Your task to perform on an android device: change your default location settings in chrome Image 0: 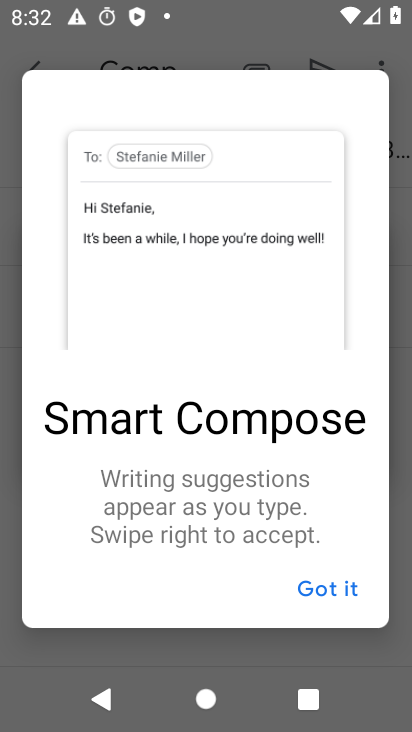
Step 0: press home button
Your task to perform on an android device: change your default location settings in chrome Image 1: 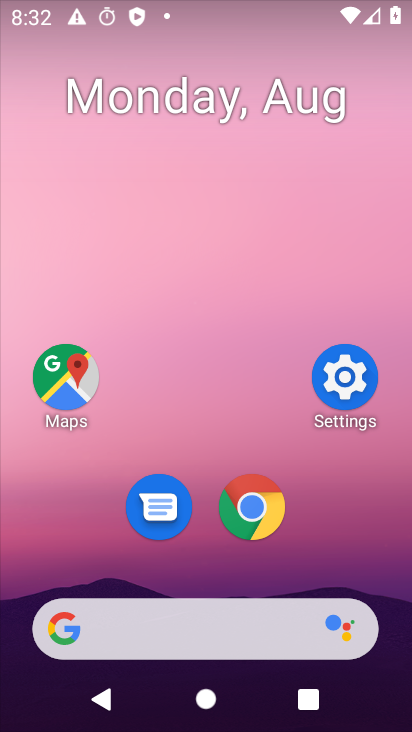
Step 1: click (245, 507)
Your task to perform on an android device: change your default location settings in chrome Image 2: 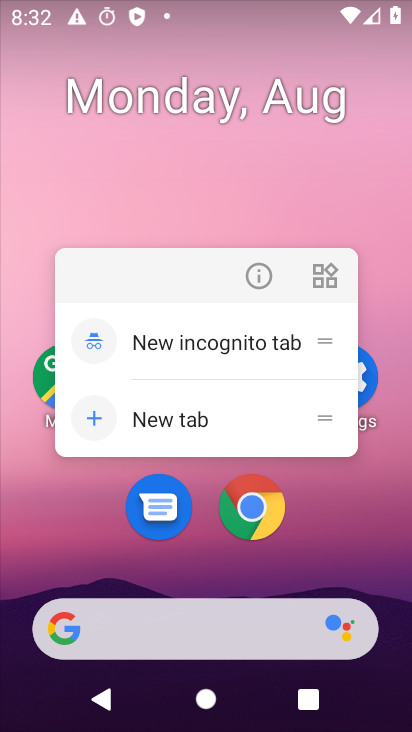
Step 2: click (251, 509)
Your task to perform on an android device: change your default location settings in chrome Image 3: 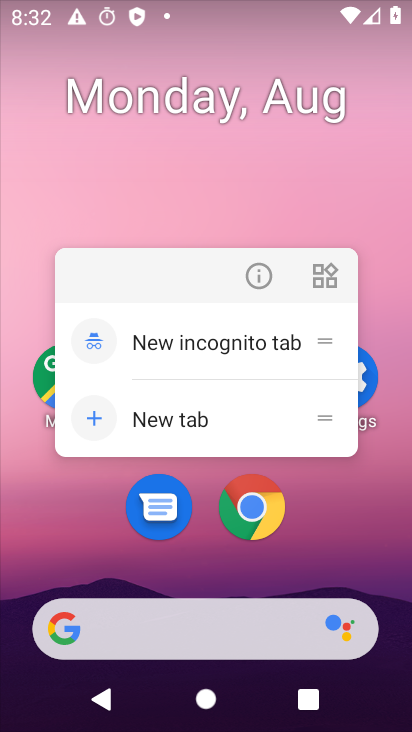
Step 3: click (251, 506)
Your task to perform on an android device: change your default location settings in chrome Image 4: 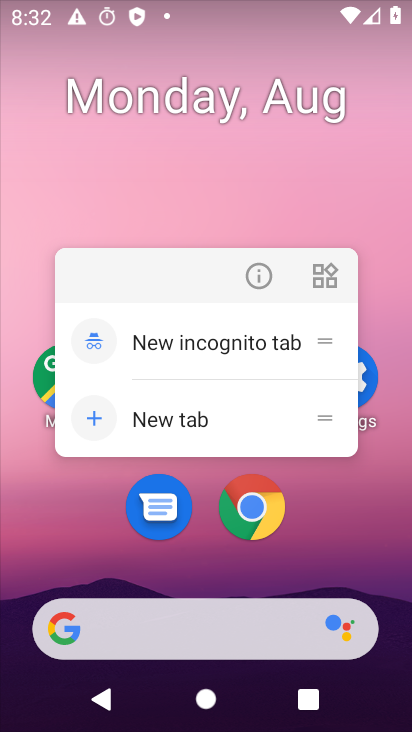
Step 4: click (256, 509)
Your task to perform on an android device: change your default location settings in chrome Image 5: 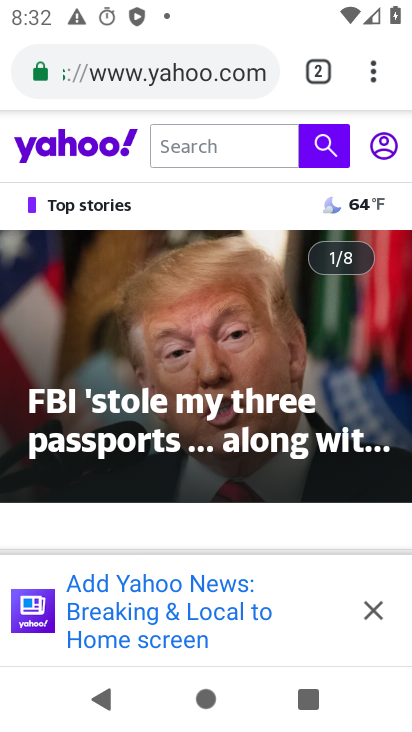
Step 5: drag from (373, 66) to (197, 513)
Your task to perform on an android device: change your default location settings in chrome Image 6: 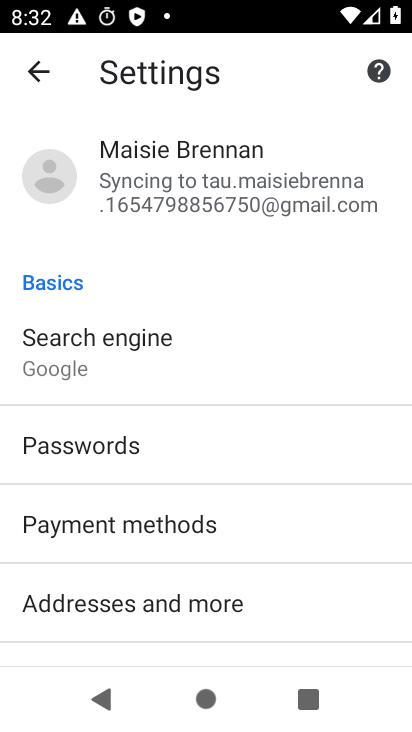
Step 6: drag from (221, 568) to (281, 118)
Your task to perform on an android device: change your default location settings in chrome Image 7: 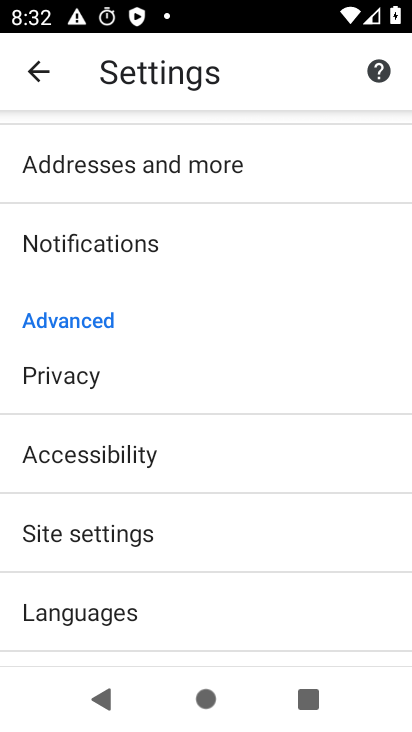
Step 7: click (115, 539)
Your task to perform on an android device: change your default location settings in chrome Image 8: 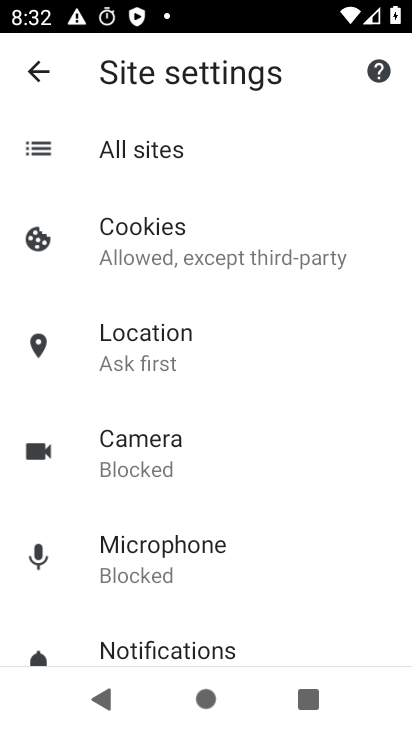
Step 8: click (152, 362)
Your task to perform on an android device: change your default location settings in chrome Image 9: 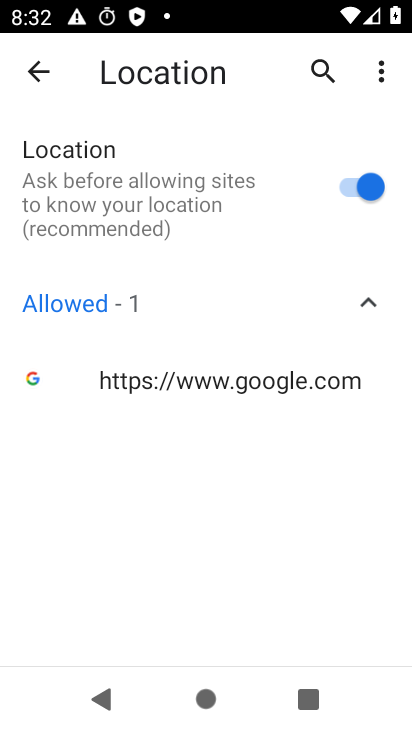
Step 9: click (347, 182)
Your task to perform on an android device: change your default location settings in chrome Image 10: 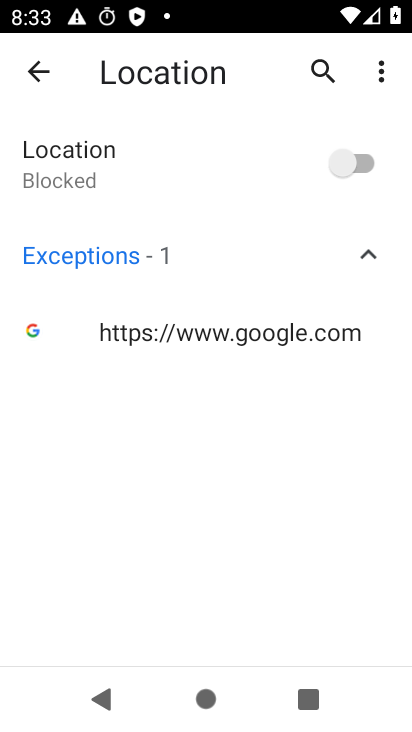
Step 10: task complete